Your task to perform on an android device: toggle wifi Image 0: 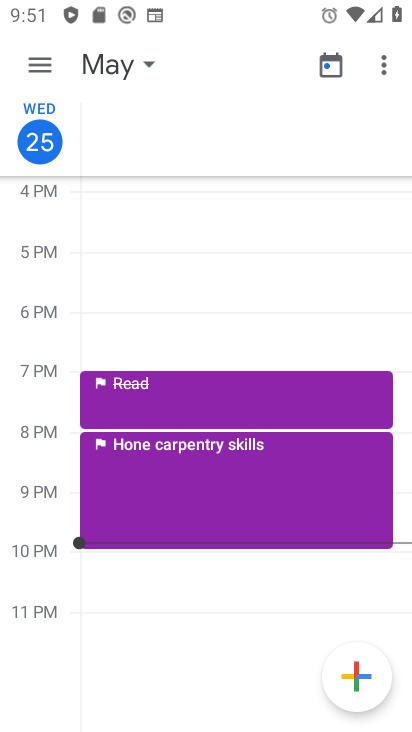
Step 0: press home button
Your task to perform on an android device: toggle wifi Image 1: 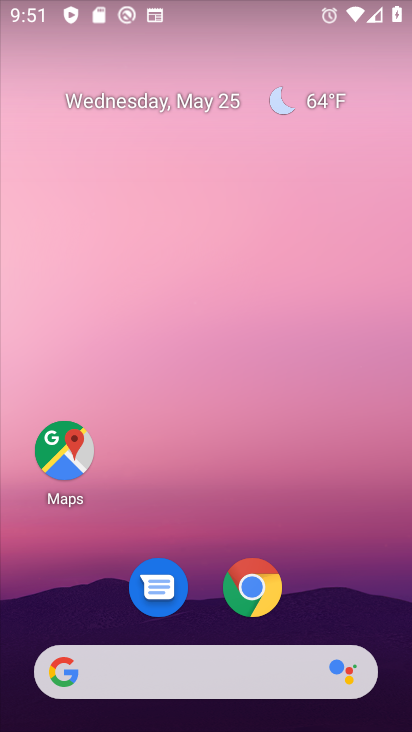
Step 1: drag from (62, 653) to (204, 91)
Your task to perform on an android device: toggle wifi Image 2: 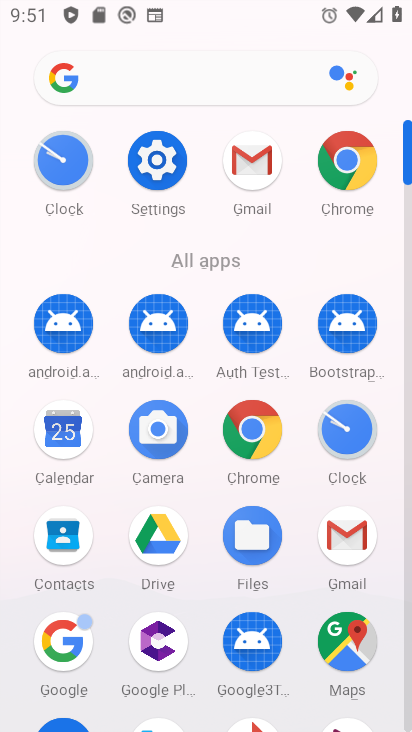
Step 2: drag from (178, 625) to (236, 387)
Your task to perform on an android device: toggle wifi Image 3: 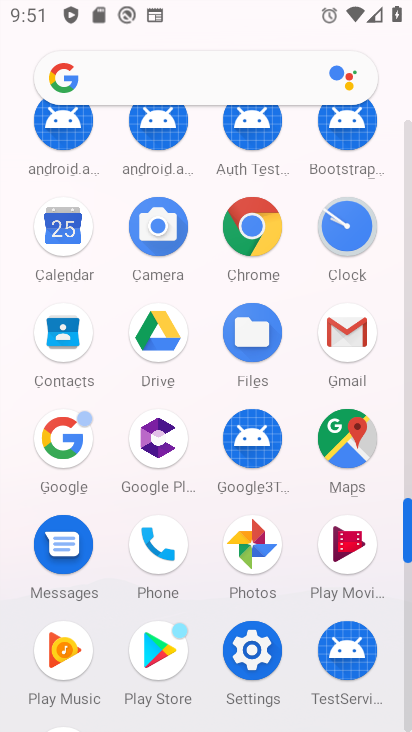
Step 3: click (256, 651)
Your task to perform on an android device: toggle wifi Image 4: 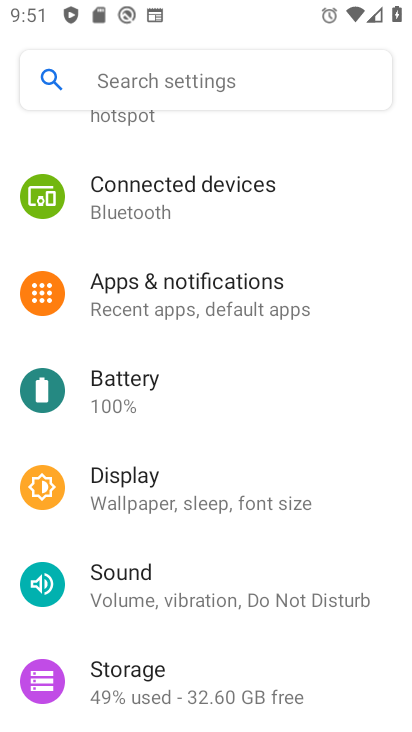
Step 4: drag from (255, 216) to (236, 622)
Your task to perform on an android device: toggle wifi Image 5: 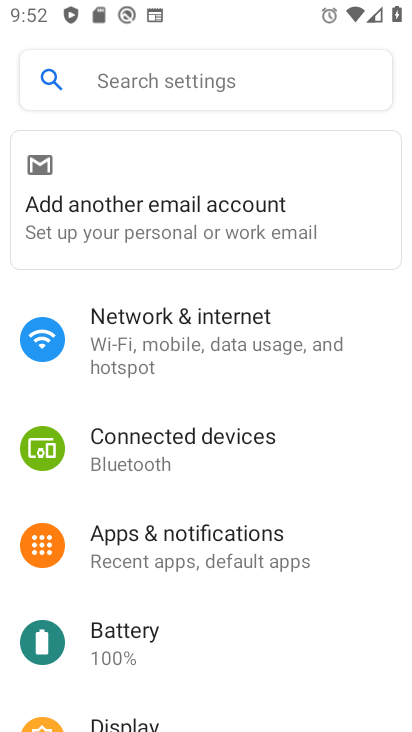
Step 5: click (213, 342)
Your task to perform on an android device: toggle wifi Image 6: 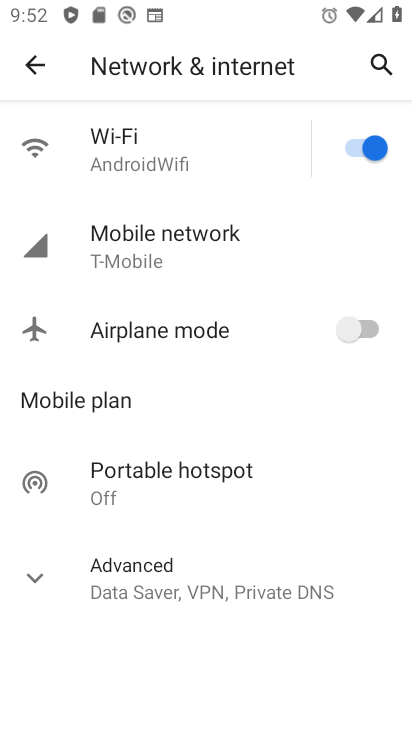
Step 6: click (355, 142)
Your task to perform on an android device: toggle wifi Image 7: 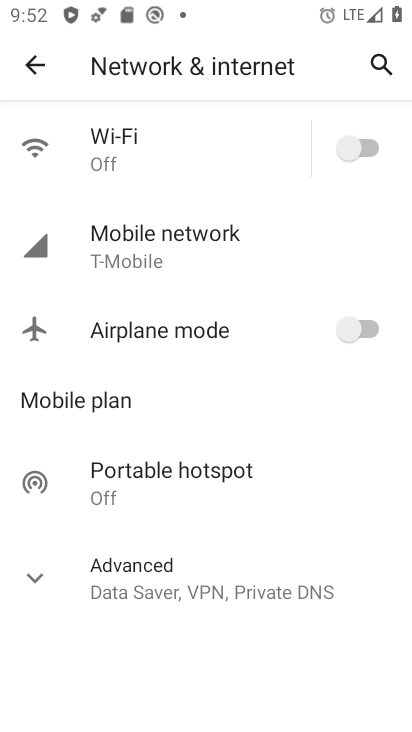
Step 7: task complete